Your task to perform on an android device: move a message to another label in the gmail app Image 0: 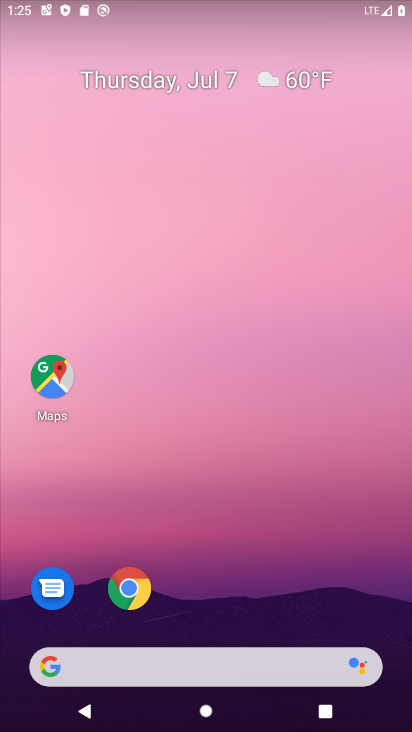
Step 0: drag from (252, 615) to (258, 256)
Your task to perform on an android device: move a message to another label in the gmail app Image 1: 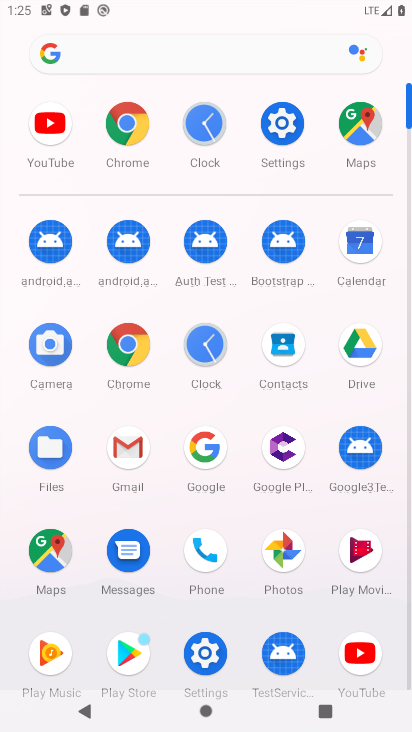
Step 1: click (136, 446)
Your task to perform on an android device: move a message to another label in the gmail app Image 2: 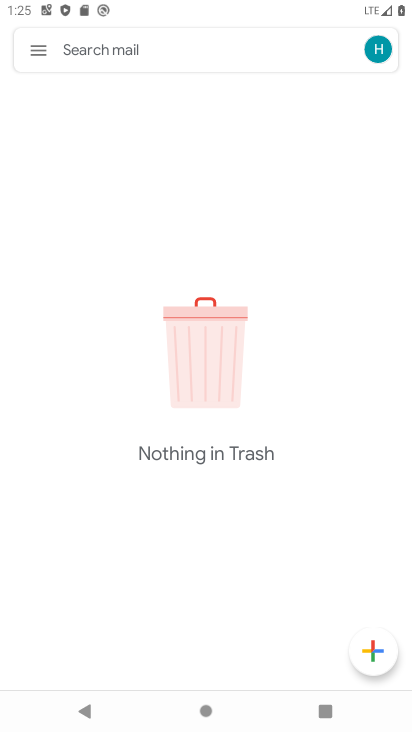
Step 2: click (40, 31)
Your task to perform on an android device: move a message to another label in the gmail app Image 3: 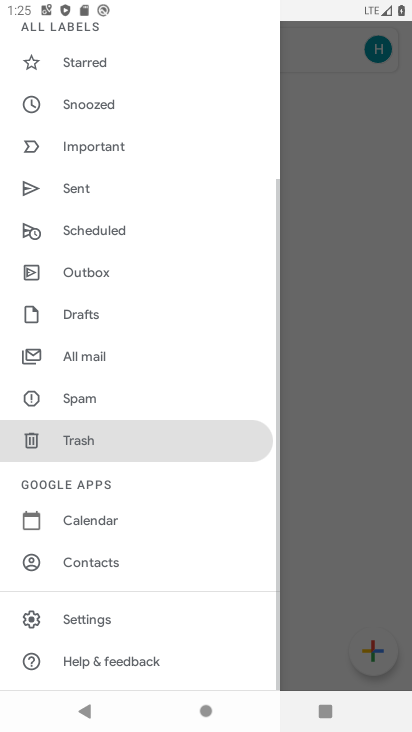
Step 3: click (98, 629)
Your task to perform on an android device: move a message to another label in the gmail app Image 4: 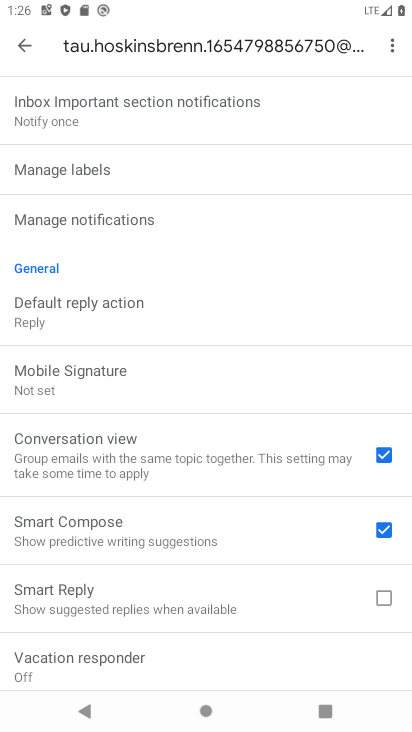
Step 4: click (119, 175)
Your task to perform on an android device: move a message to another label in the gmail app Image 5: 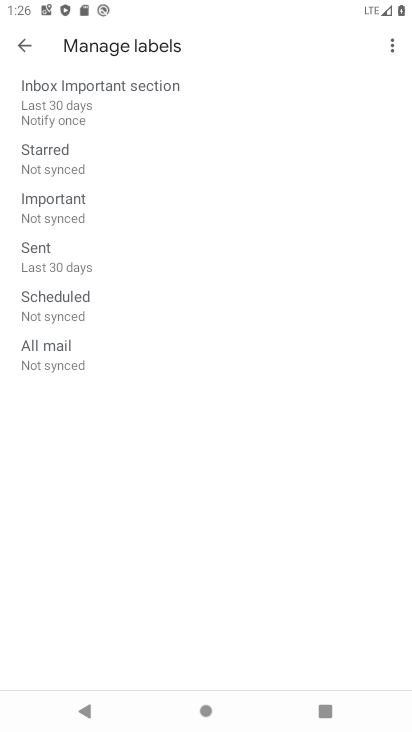
Step 5: task complete